Your task to perform on an android device: turn off sleep mode Image 0: 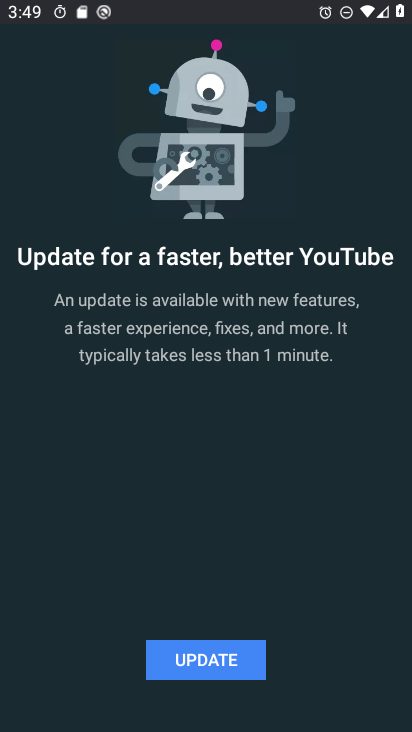
Step 0: press home button
Your task to perform on an android device: turn off sleep mode Image 1: 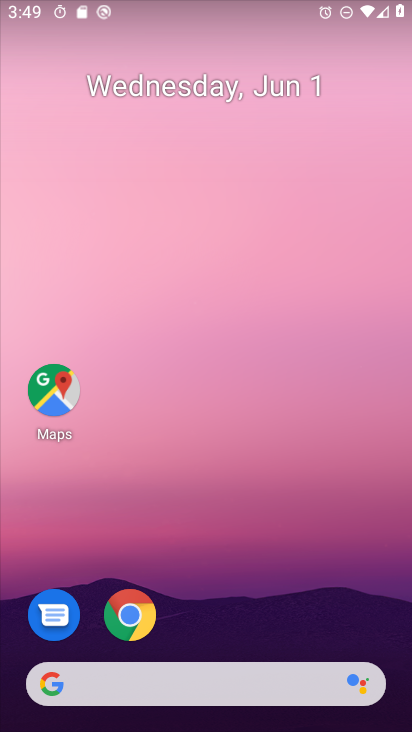
Step 1: drag from (254, 643) to (305, 109)
Your task to perform on an android device: turn off sleep mode Image 2: 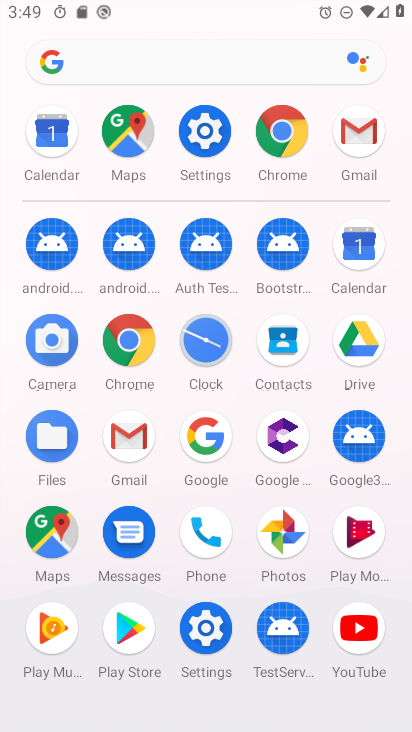
Step 2: click (209, 109)
Your task to perform on an android device: turn off sleep mode Image 3: 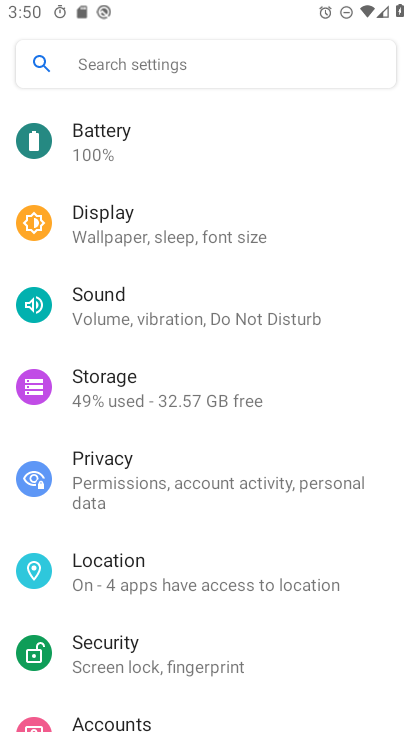
Step 3: drag from (276, 538) to (286, 165)
Your task to perform on an android device: turn off sleep mode Image 4: 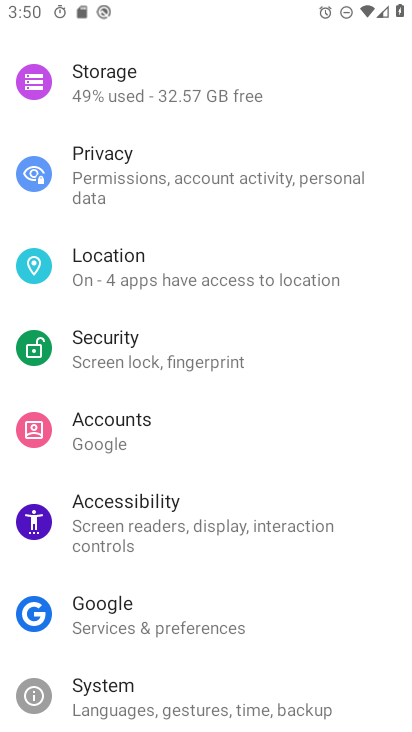
Step 4: drag from (254, 621) to (309, 262)
Your task to perform on an android device: turn off sleep mode Image 5: 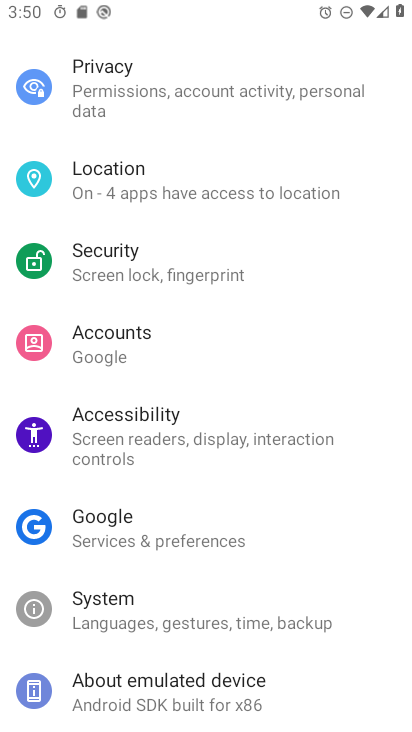
Step 5: drag from (279, 232) to (254, 556)
Your task to perform on an android device: turn off sleep mode Image 6: 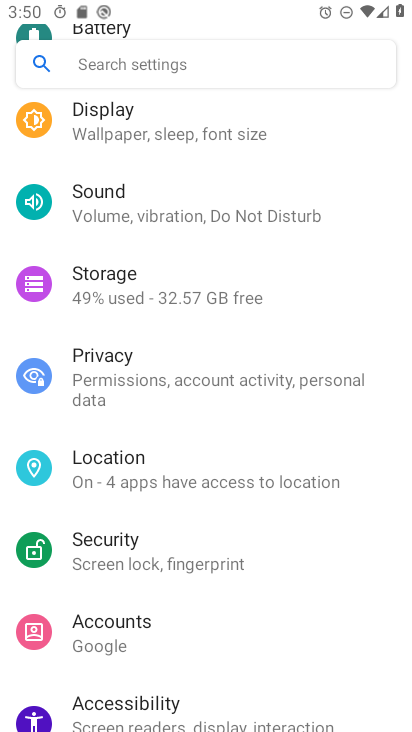
Step 6: click (192, 125)
Your task to perform on an android device: turn off sleep mode Image 7: 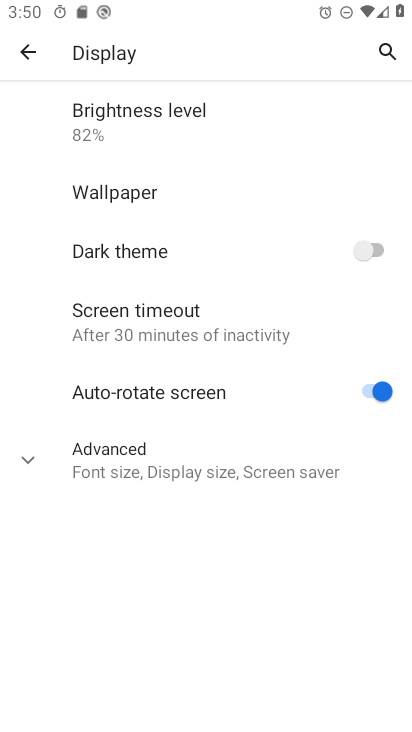
Step 7: task complete